Your task to perform on an android device: set the stopwatch Image 0: 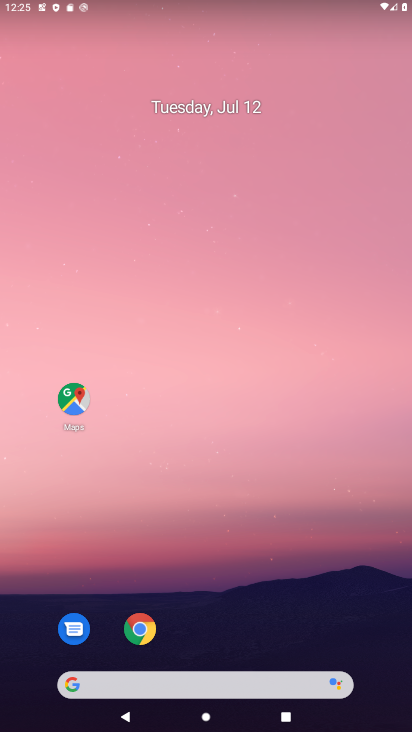
Step 0: drag from (396, 624) to (192, 117)
Your task to perform on an android device: set the stopwatch Image 1: 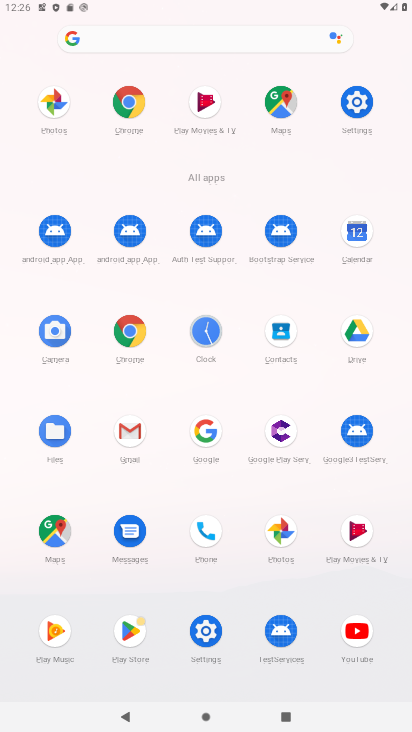
Step 1: click (211, 326)
Your task to perform on an android device: set the stopwatch Image 2: 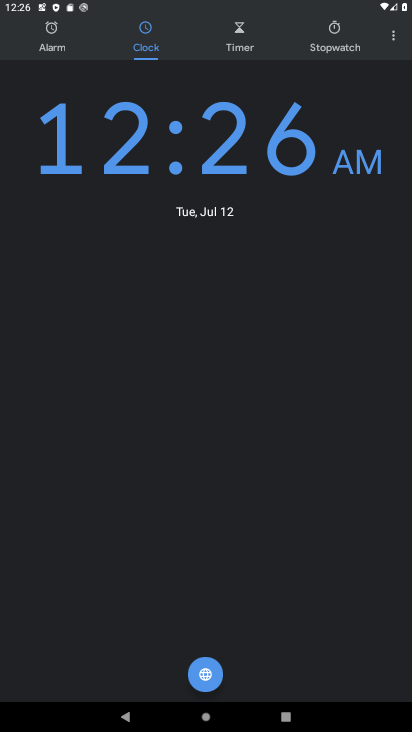
Step 2: click (366, 52)
Your task to perform on an android device: set the stopwatch Image 3: 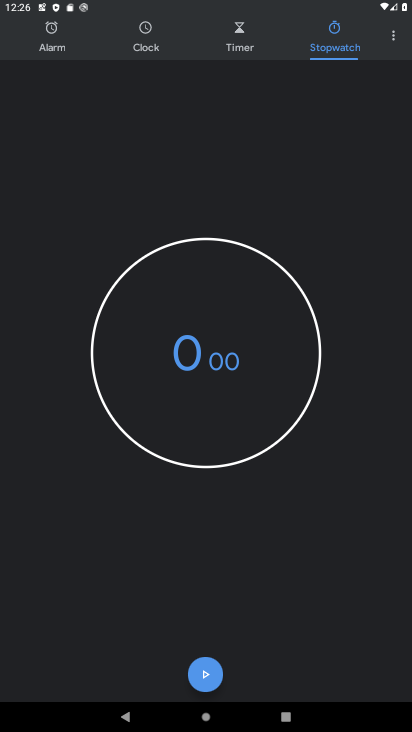
Step 3: click (208, 682)
Your task to perform on an android device: set the stopwatch Image 4: 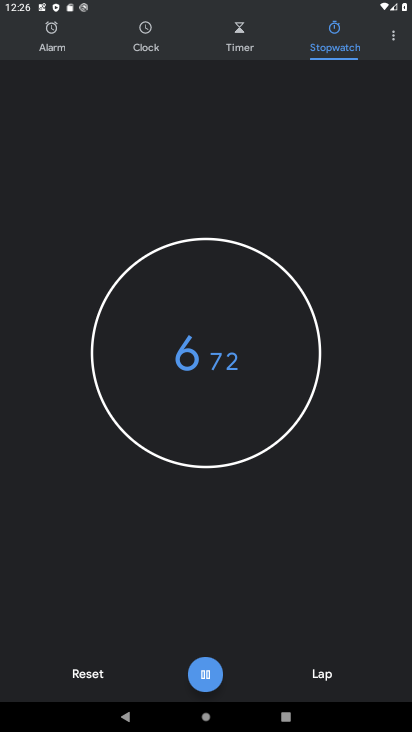
Step 4: task complete